Your task to perform on an android device: turn vacation reply on in the gmail app Image 0: 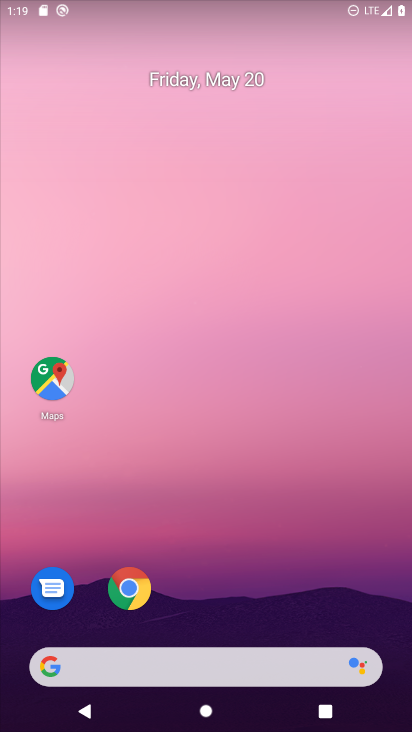
Step 0: drag from (387, 626) to (274, 107)
Your task to perform on an android device: turn vacation reply on in the gmail app Image 1: 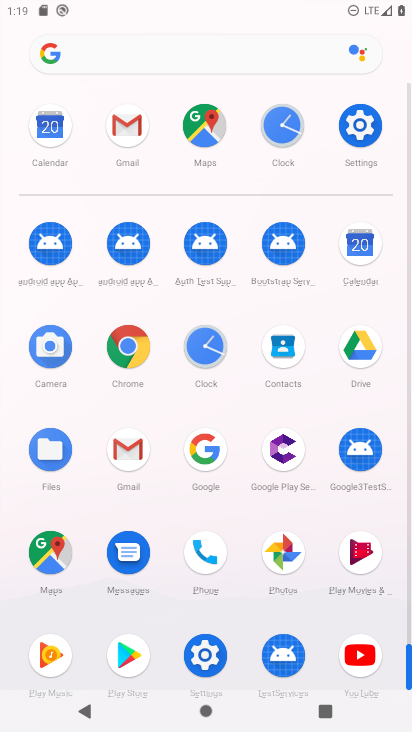
Step 1: click (125, 447)
Your task to perform on an android device: turn vacation reply on in the gmail app Image 2: 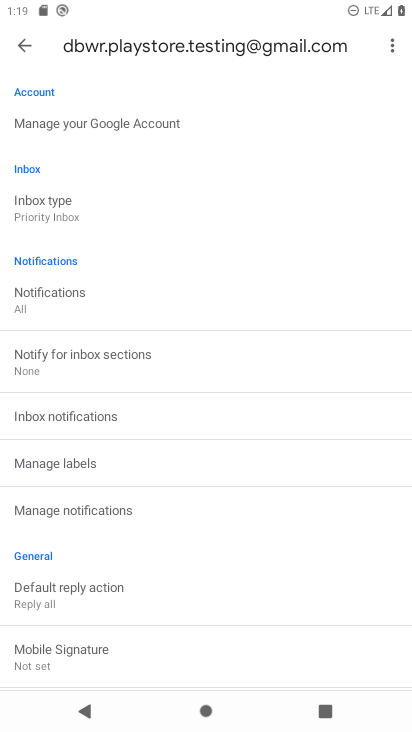
Step 2: drag from (214, 632) to (216, 192)
Your task to perform on an android device: turn vacation reply on in the gmail app Image 3: 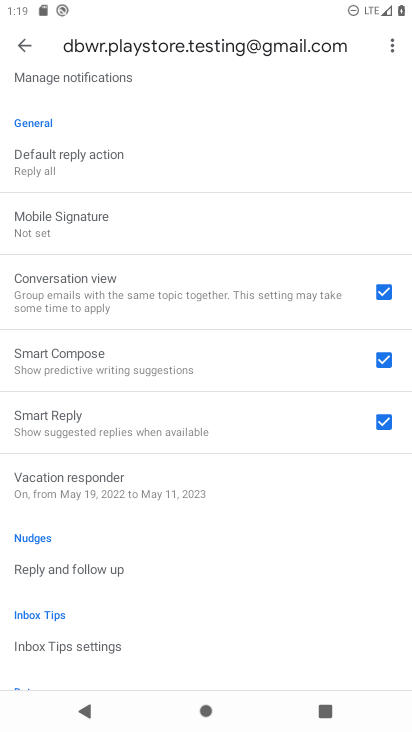
Step 3: click (118, 482)
Your task to perform on an android device: turn vacation reply on in the gmail app Image 4: 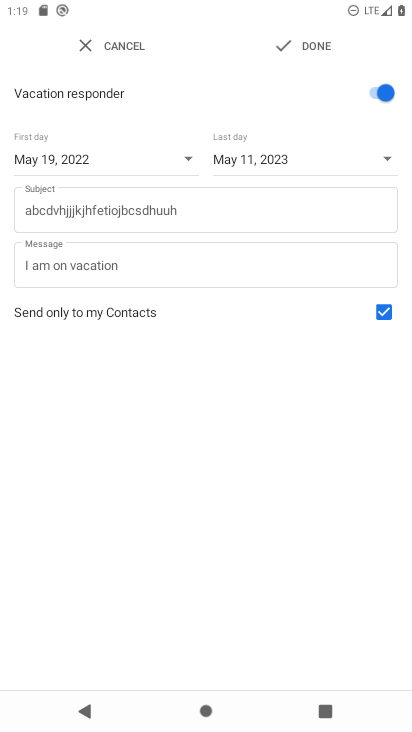
Step 4: task complete